Your task to perform on an android device: refresh tabs in the chrome app Image 0: 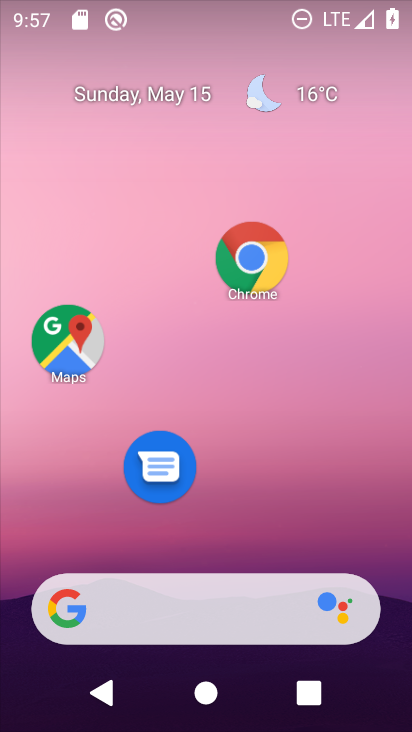
Step 0: click (260, 254)
Your task to perform on an android device: refresh tabs in the chrome app Image 1: 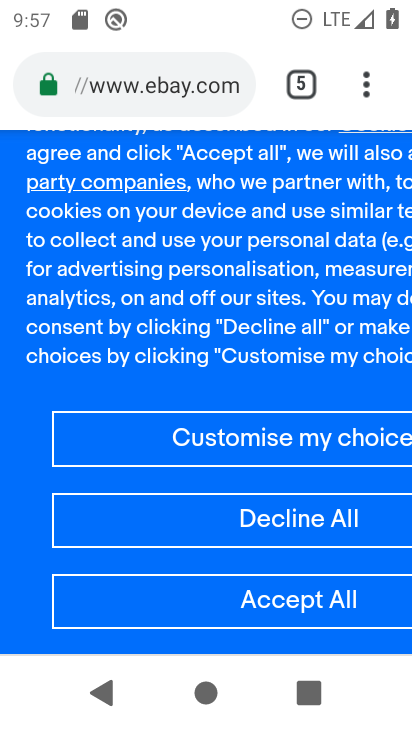
Step 1: click (386, 77)
Your task to perform on an android device: refresh tabs in the chrome app Image 2: 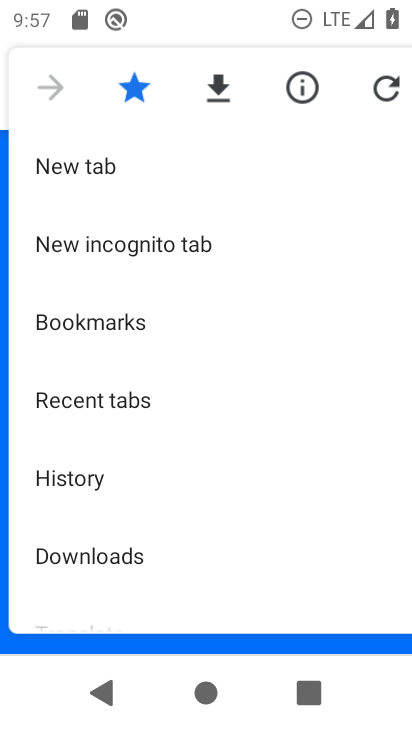
Step 2: click (382, 81)
Your task to perform on an android device: refresh tabs in the chrome app Image 3: 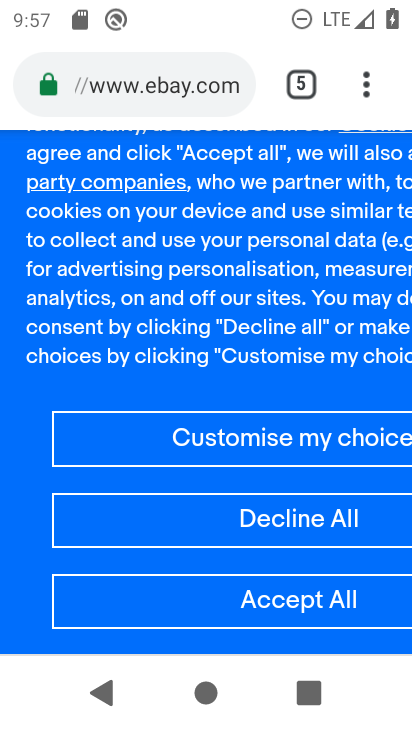
Step 3: task complete